Your task to perform on an android device: What is the news today? Image 0: 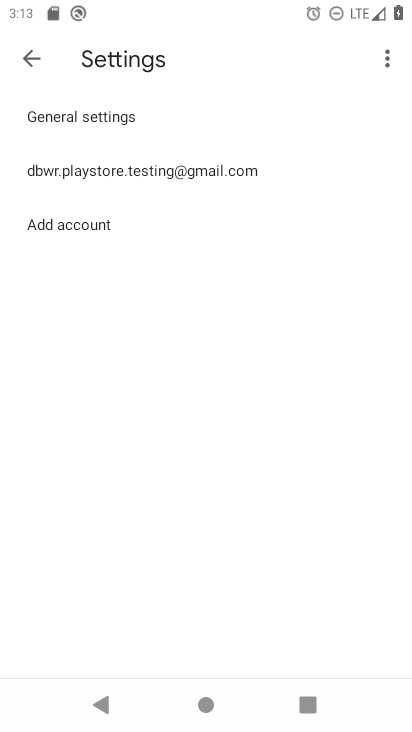
Step 0: press home button
Your task to perform on an android device: What is the news today? Image 1: 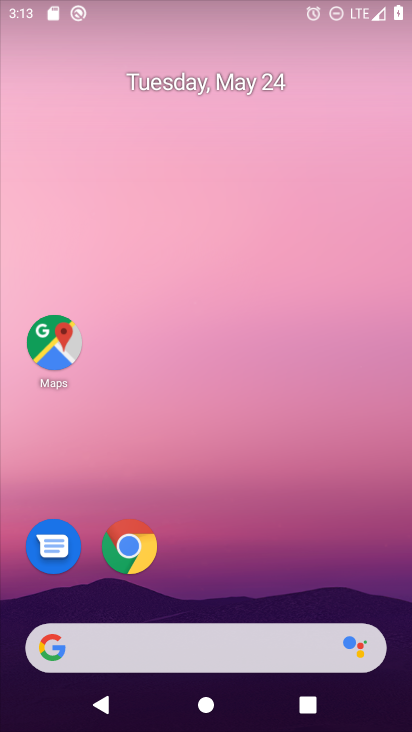
Step 1: drag from (229, 637) to (238, 24)
Your task to perform on an android device: What is the news today? Image 2: 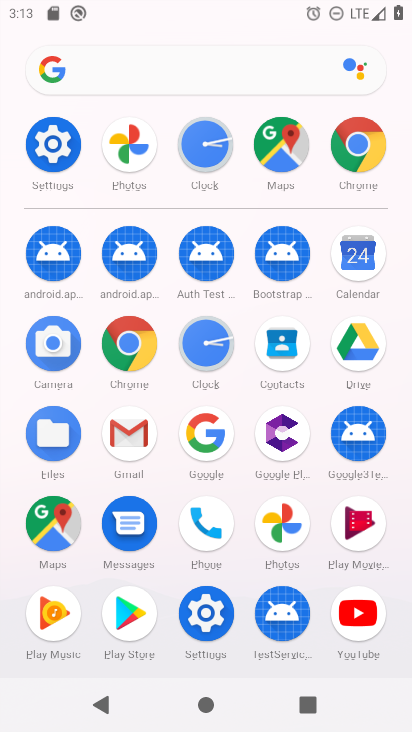
Step 2: click (130, 342)
Your task to perform on an android device: What is the news today? Image 3: 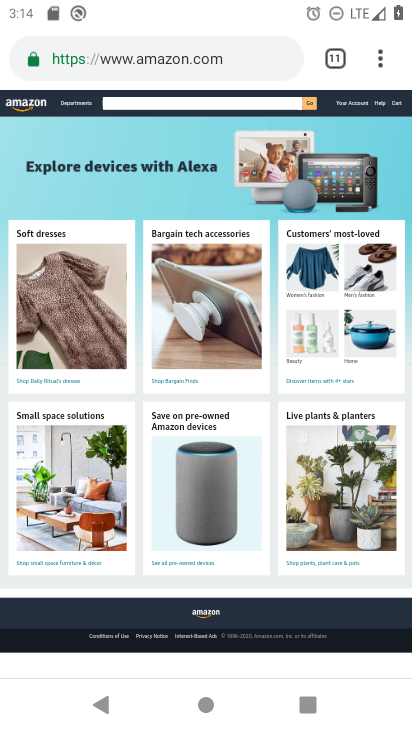
Step 3: click (213, 70)
Your task to perform on an android device: What is the news today? Image 4: 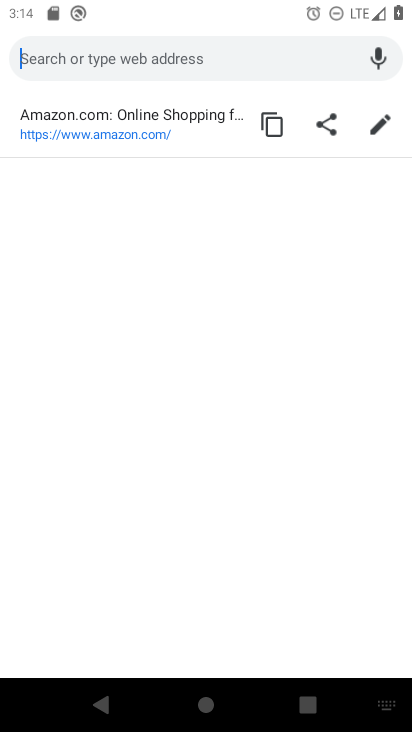
Step 4: type "news today"
Your task to perform on an android device: What is the news today? Image 5: 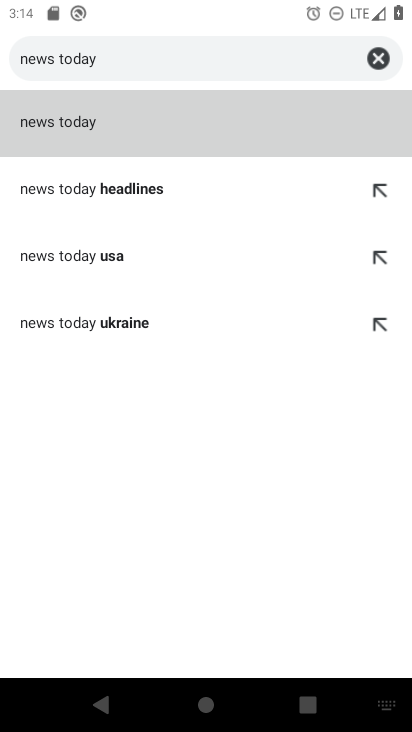
Step 5: click (120, 143)
Your task to perform on an android device: What is the news today? Image 6: 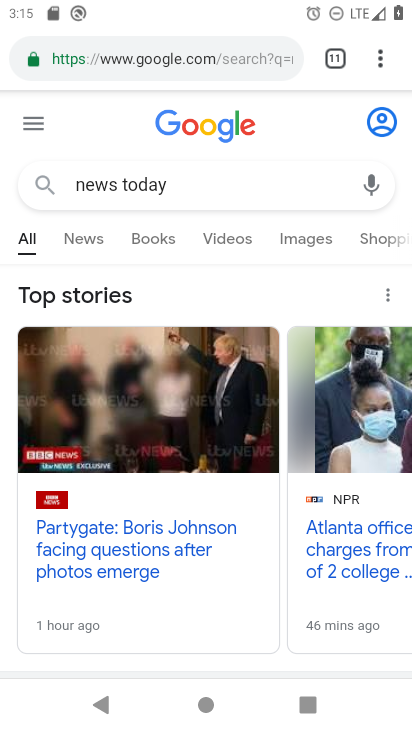
Step 6: task complete